Your task to perform on an android device: Go to location settings Image 0: 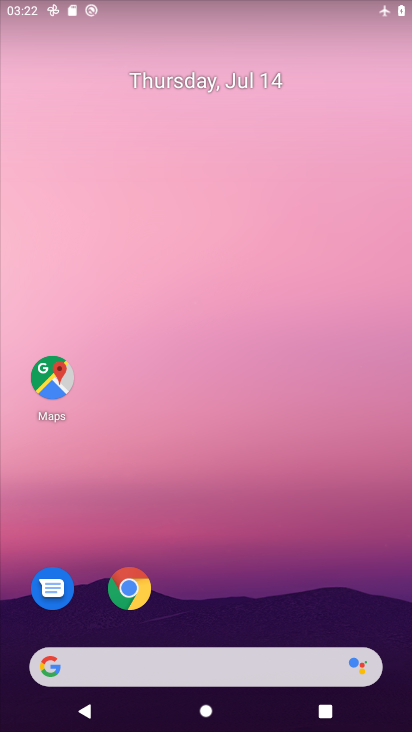
Step 0: drag from (338, 615) to (263, 106)
Your task to perform on an android device: Go to location settings Image 1: 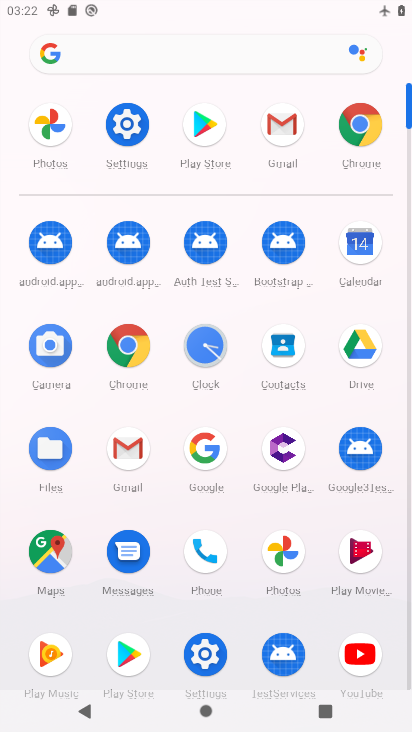
Step 1: click (123, 130)
Your task to perform on an android device: Go to location settings Image 2: 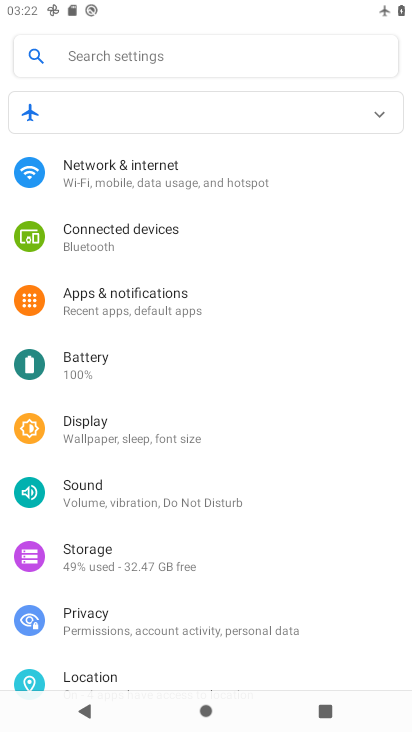
Step 2: click (126, 676)
Your task to perform on an android device: Go to location settings Image 3: 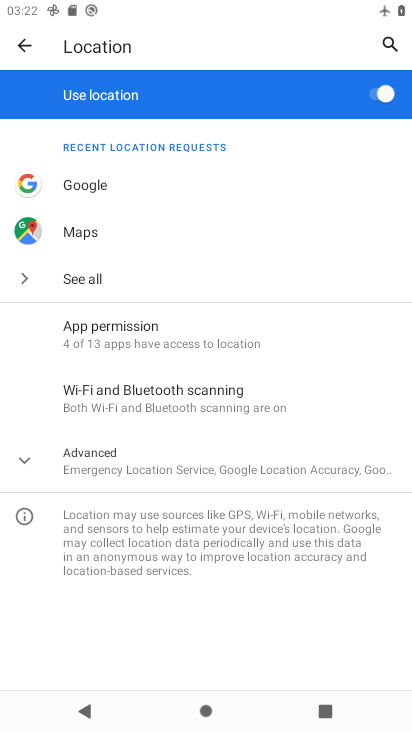
Step 3: task complete